Your task to perform on an android device: turn on translation in the chrome app Image 0: 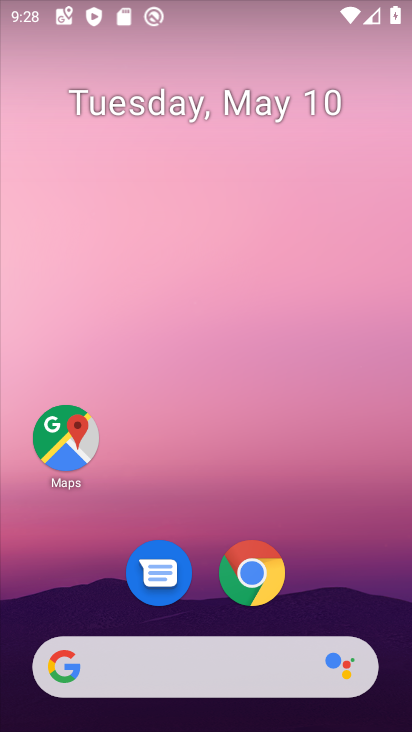
Step 0: click (248, 577)
Your task to perform on an android device: turn on translation in the chrome app Image 1: 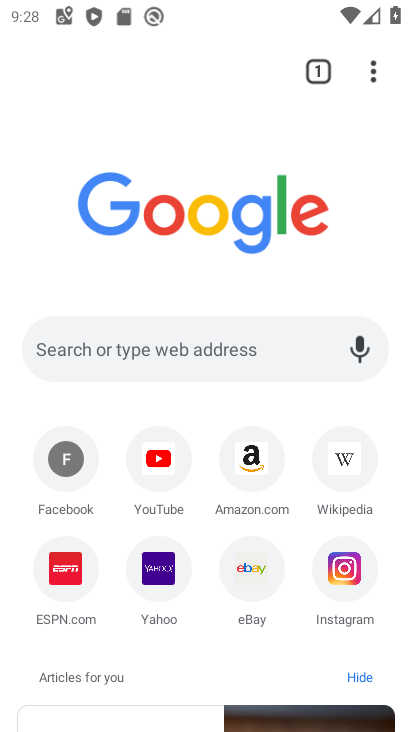
Step 1: click (372, 69)
Your task to perform on an android device: turn on translation in the chrome app Image 2: 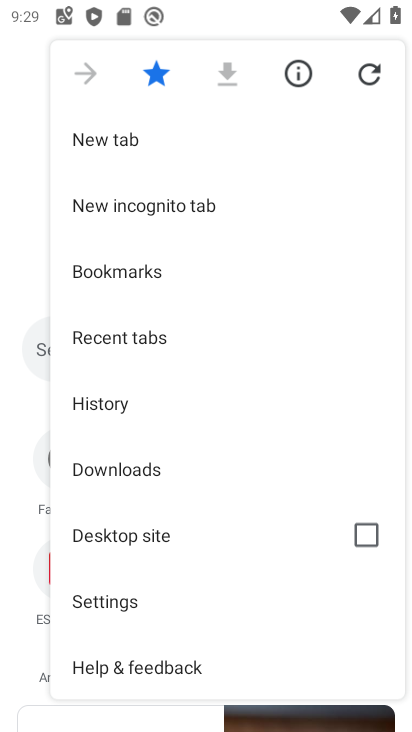
Step 2: click (114, 597)
Your task to perform on an android device: turn on translation in the chrome app Image 3: 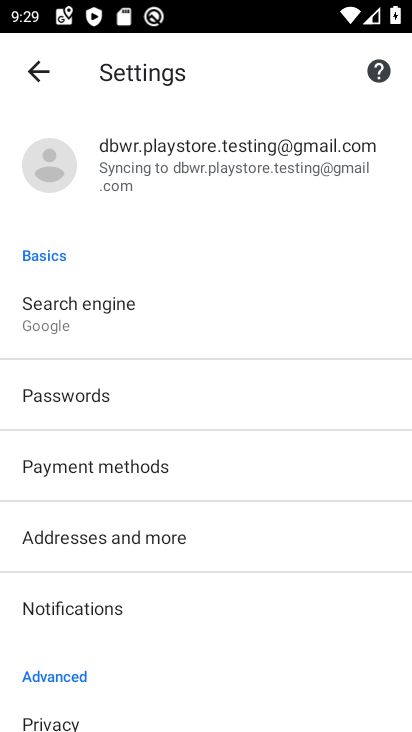
Step 3: drag from (178, 634) to (187, 316)
Your task to perform on an android device: turn on translation in the chrome app Image 4: 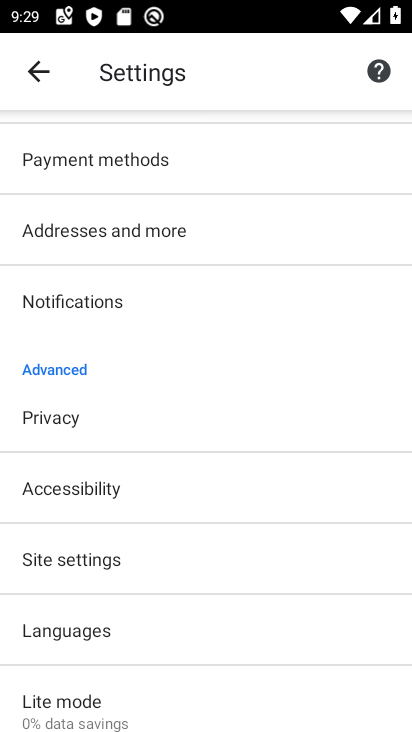
Step 4: click (97, 626)
Your task to perform on an android device: turn on translation in the chrome app Image 5: 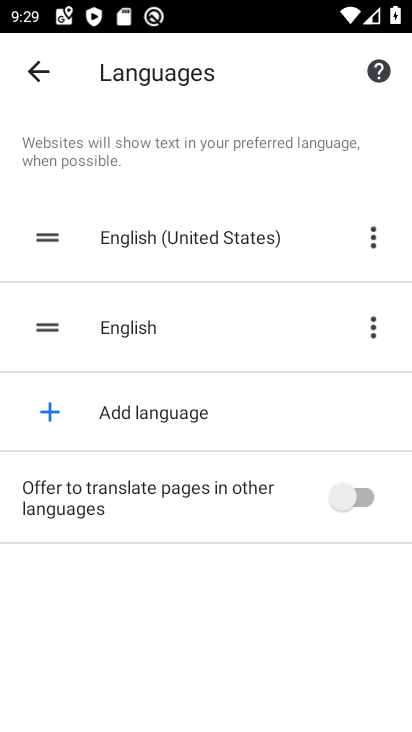
Step 5: click (344, 496)
Your task to perform on an android device: turn on translation in the chrome app Image 6: 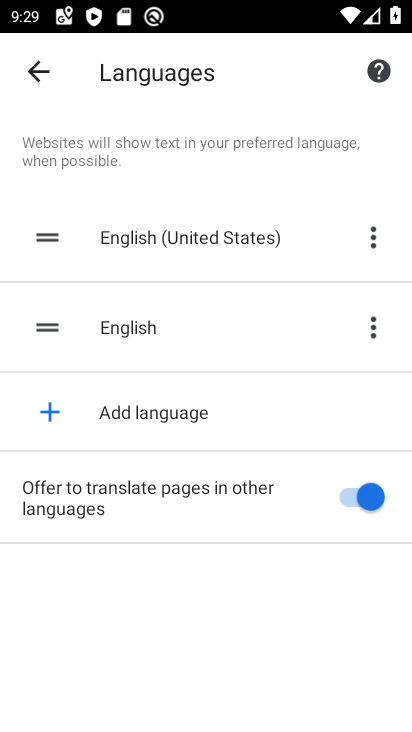
Step 6: task complete